Your task to perform on an android device: Go to Google Image 0: 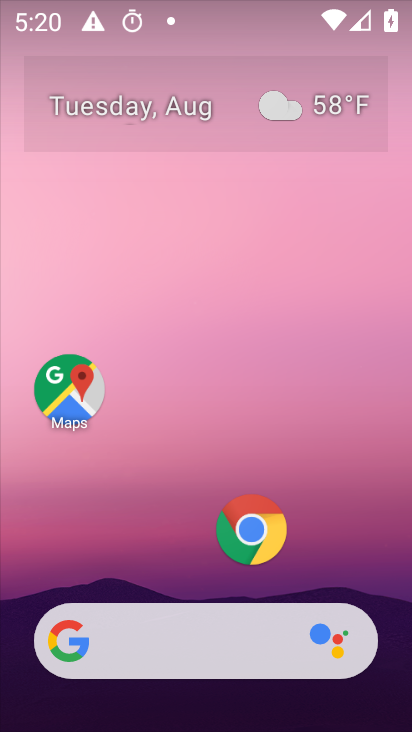
Step 0: click (187, 276)
Your task to perform on an android device: Go to Google Image 1: 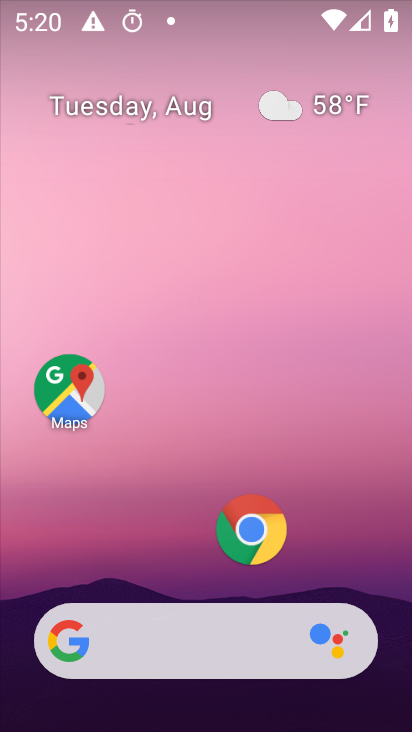
Step 1: drag from (194, 559) to (214, 279)
Your task to perform on an android device: Go to Google Image 2: 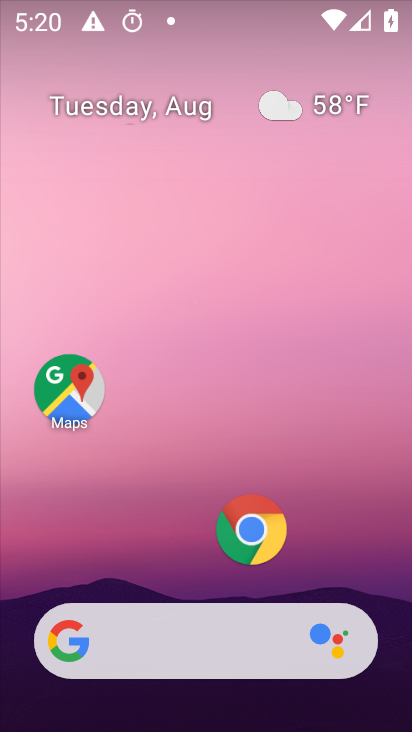
Step 2: drag from (190, 497) to (212, 270)
Your task to perform on an android device: Go to Google Image 3: 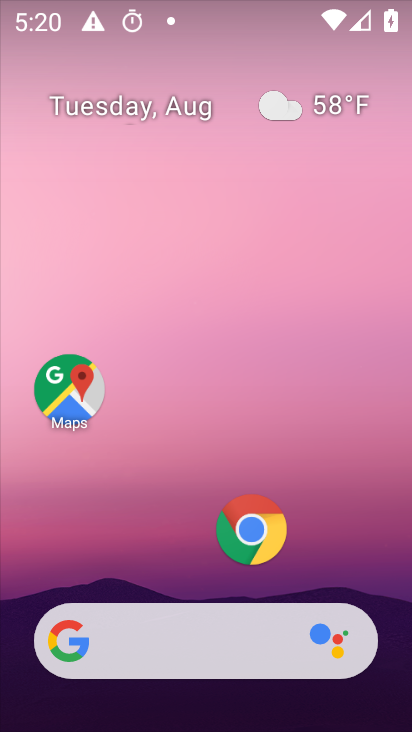
Step 3: drag from (180, 550) to (199, 187)
Your task to perform on an android device: Go to Google Image 4: 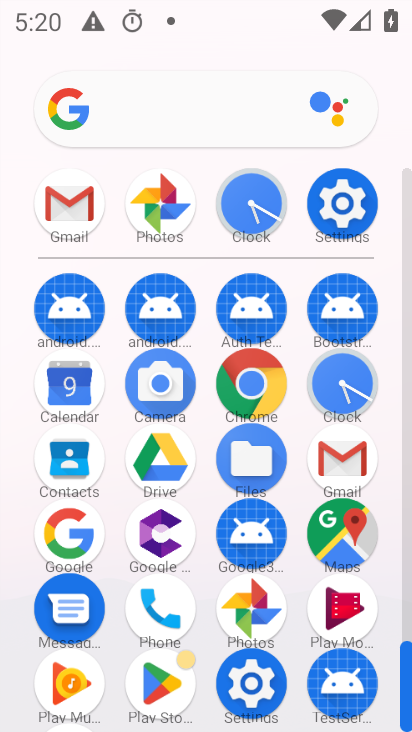
Step 4: click (30, 541)
Your task to perform on an android device: Go to Google Image 5: 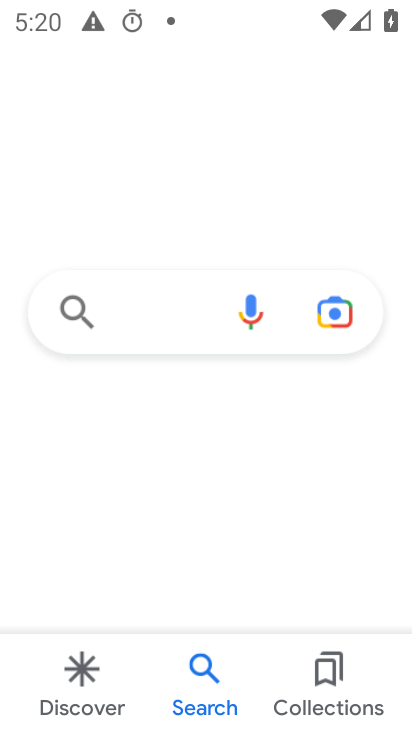
Step 5: task complete